Your task to perform on an android device: open a bookmark in the chrome app Image 0: 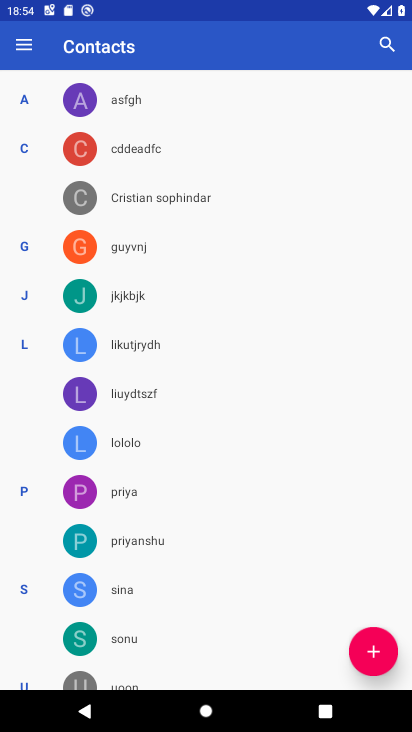
Step 0: press home button
Your task to perform on an android device: open a bookmark in the chrome app Image 1: 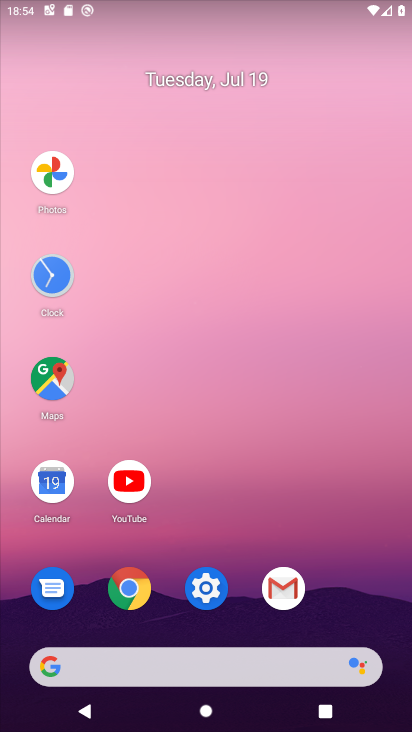
Step 1: click (128, 588)
Your task to perform on an android device: open a bookmark in the chrome app Image 2: 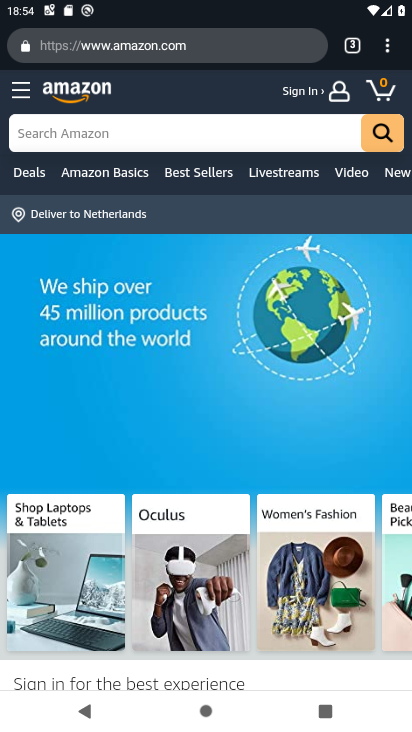
Step 2: click (387, 42)
Your task to perform on an android device: open a bookmark in the chrome app Image 3: 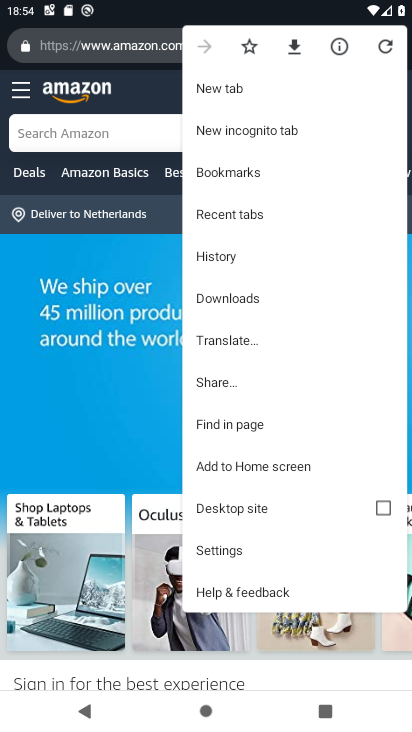
Step 3: click (236, 168)
Your task to perform on an android device: open a bookmark in the chrome app Image 4: 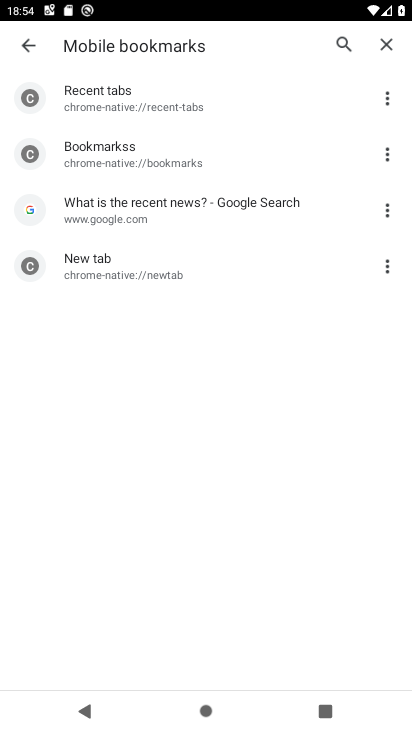
Step 4: task complete